Your task to perform on an android device: Do I have any events tomorrow? Image 0: 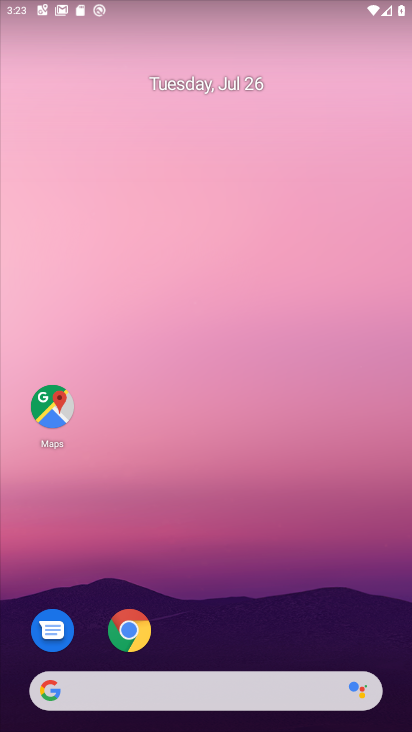
Step 0: click (205, 81)
Your task to perform on an android device: Do I have any events tomorrow? Image 1: 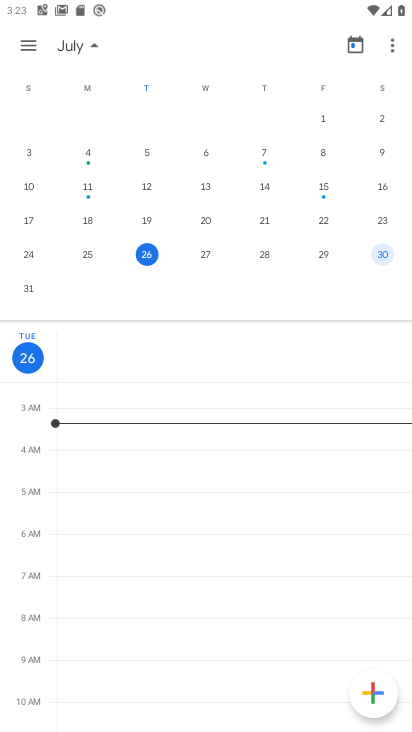
Step 1: click (206, 253)
Your task to perform on an android device: Do I have any events tomorrow? Image 2: 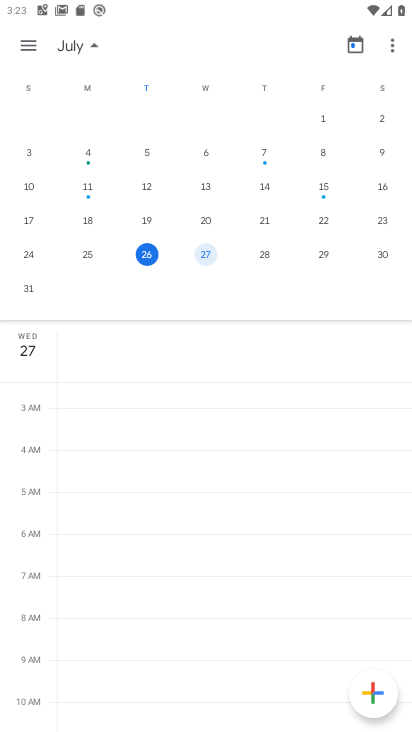
Step 2: task complete